Your task to perform on an android device: open chrome privacy settings Image 0: 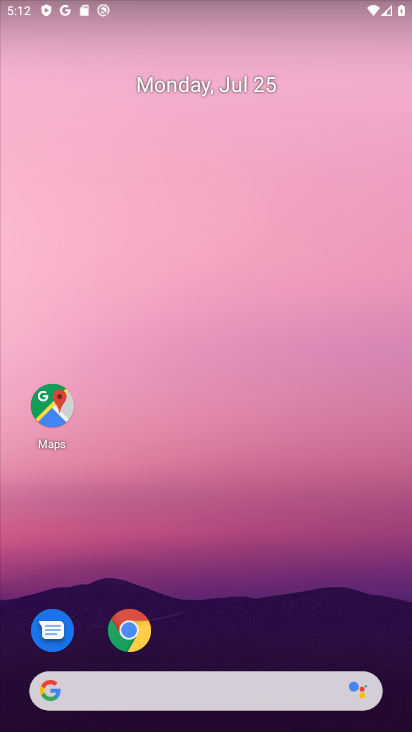
Step 0: click (313, 156)
Your task to perform on an android device: open chrome privacy settings Image 1: 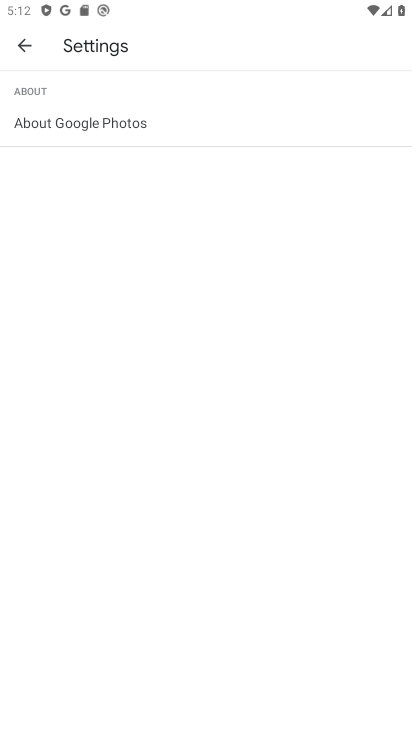
Step 1: click (23, 41)
Your task to perform on an android device: open chrome privacy settings Image 2: 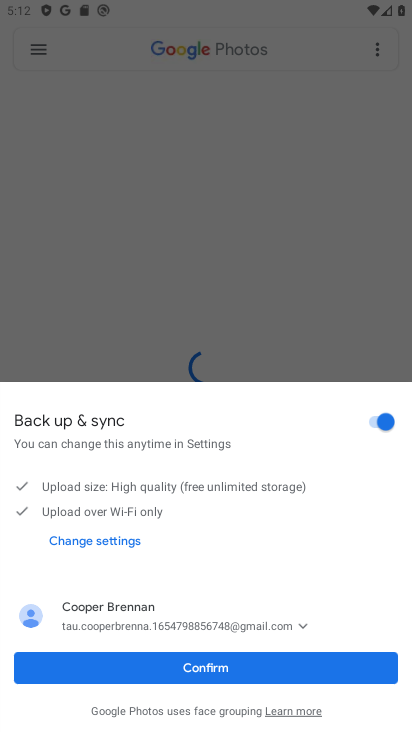
Step 2: press home button
Your task to perform on an android device: open chrome privacy settings Image 3: 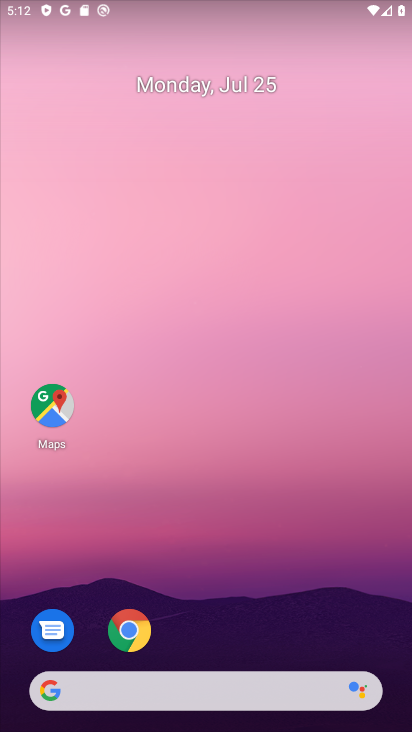
Step 3: click (130, 627)
Your task to perform on an android device: open chrome privacy settings Image 4: 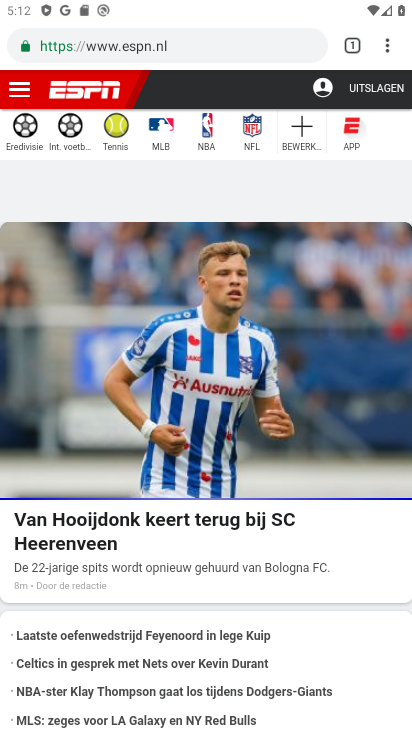
Step 4: click (390, 42)
Your task to perform on an android device: open chrome privacy settings Image 5: 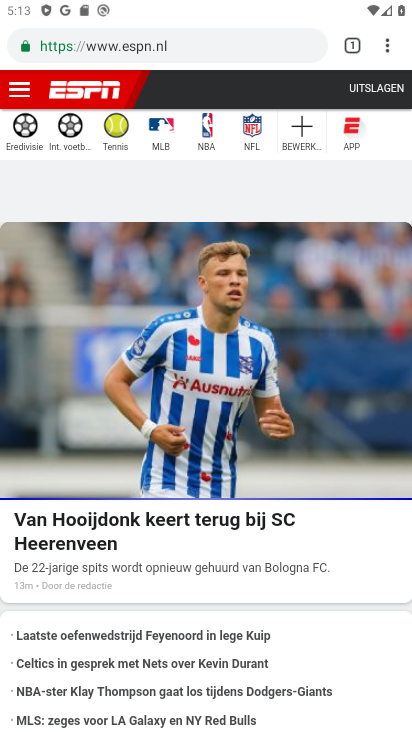
Step 5: click (387, 47)
Your task to perform on an android device: open chrome privacy settings Image 6: 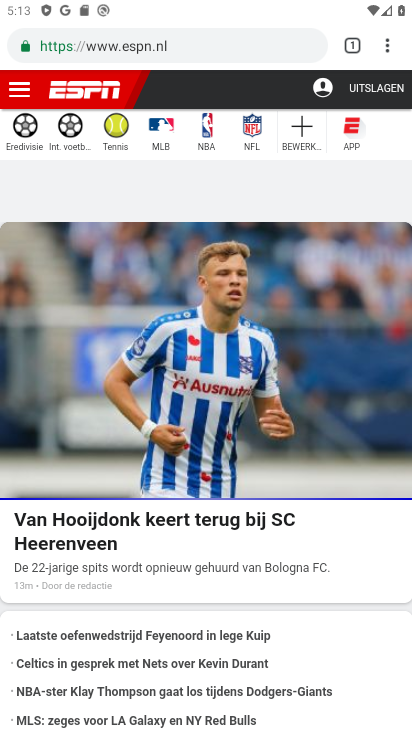
Step 6: click (387, 47)
Your task to perform on an android device: open chrome privacy settings Image 7: 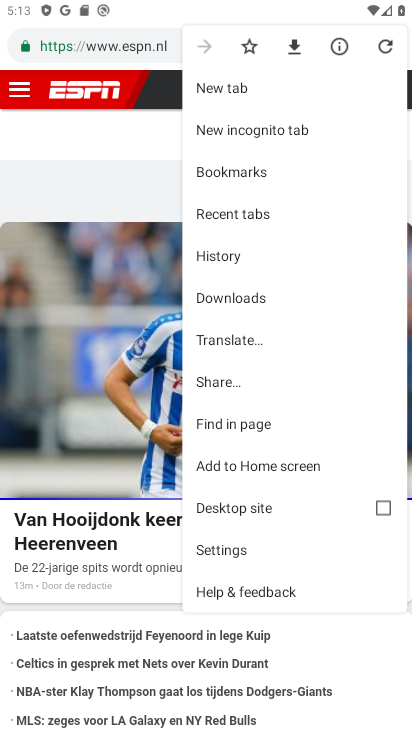
Step 7: click (254, 547)
Your task to perform on an android device: open chrome privacy settings Image 8: 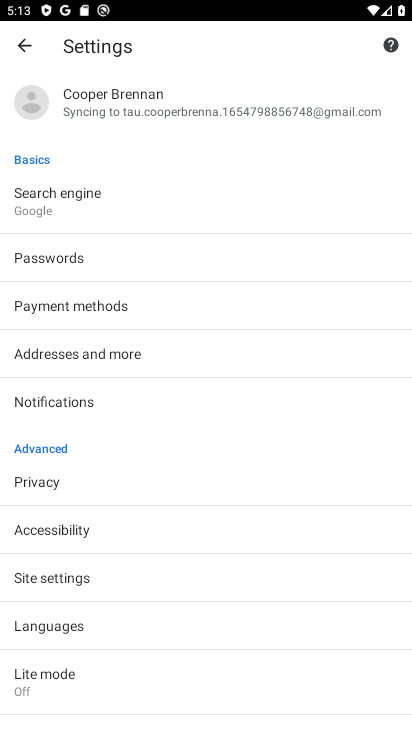
Step 8: click (63, 481)
Your task to perform on an android device: open chrome privacy settings Image 9: 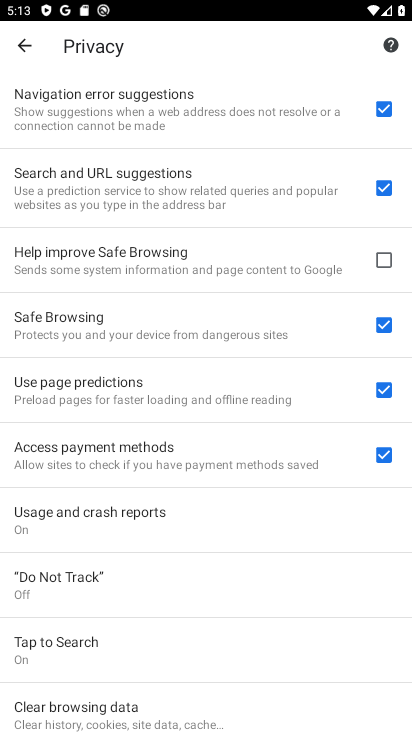
Step 9: task complete